Your task to perform on an android device: Search for sushi restaurants on Maps Image 0: 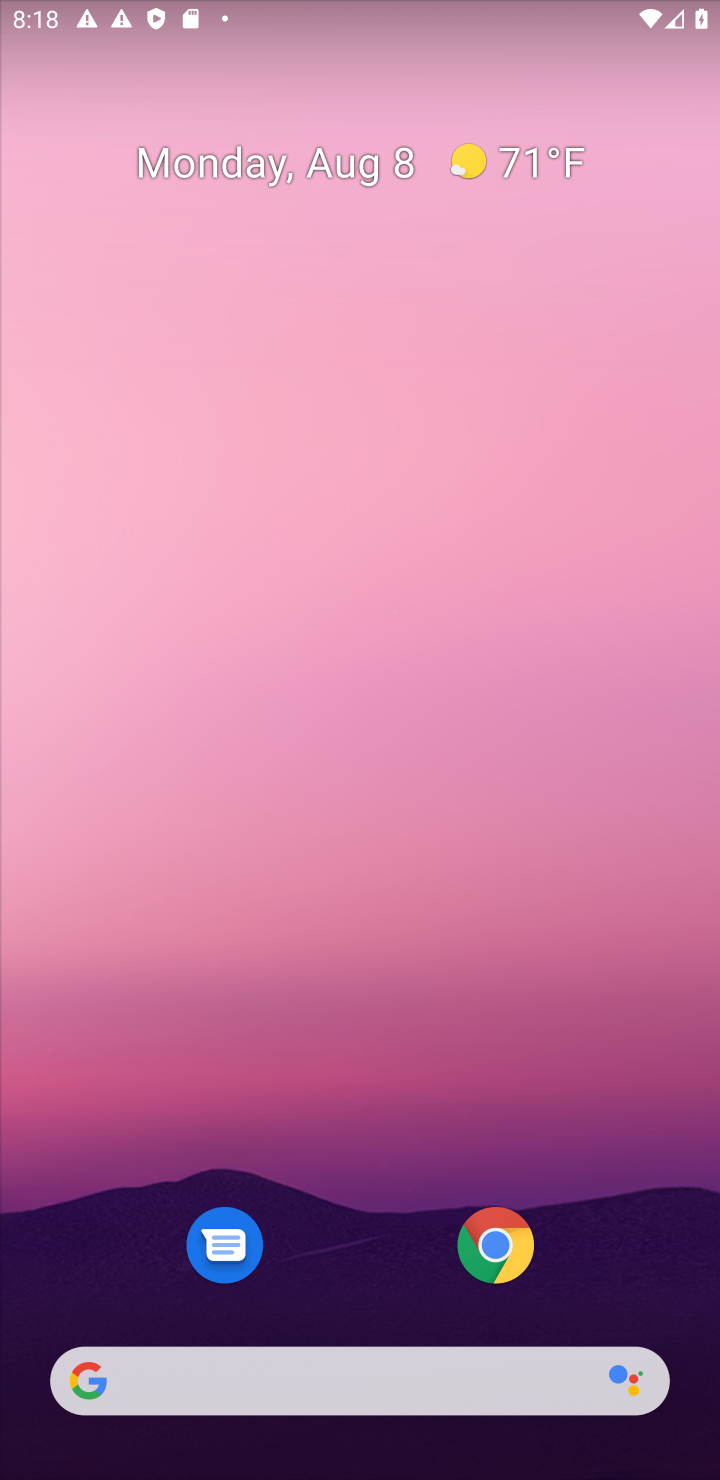
Step 0: drag from (339, 1168) to (309, 28)
Your task to perform on an android device: Search for sushi restaurants on Maps Image 1: 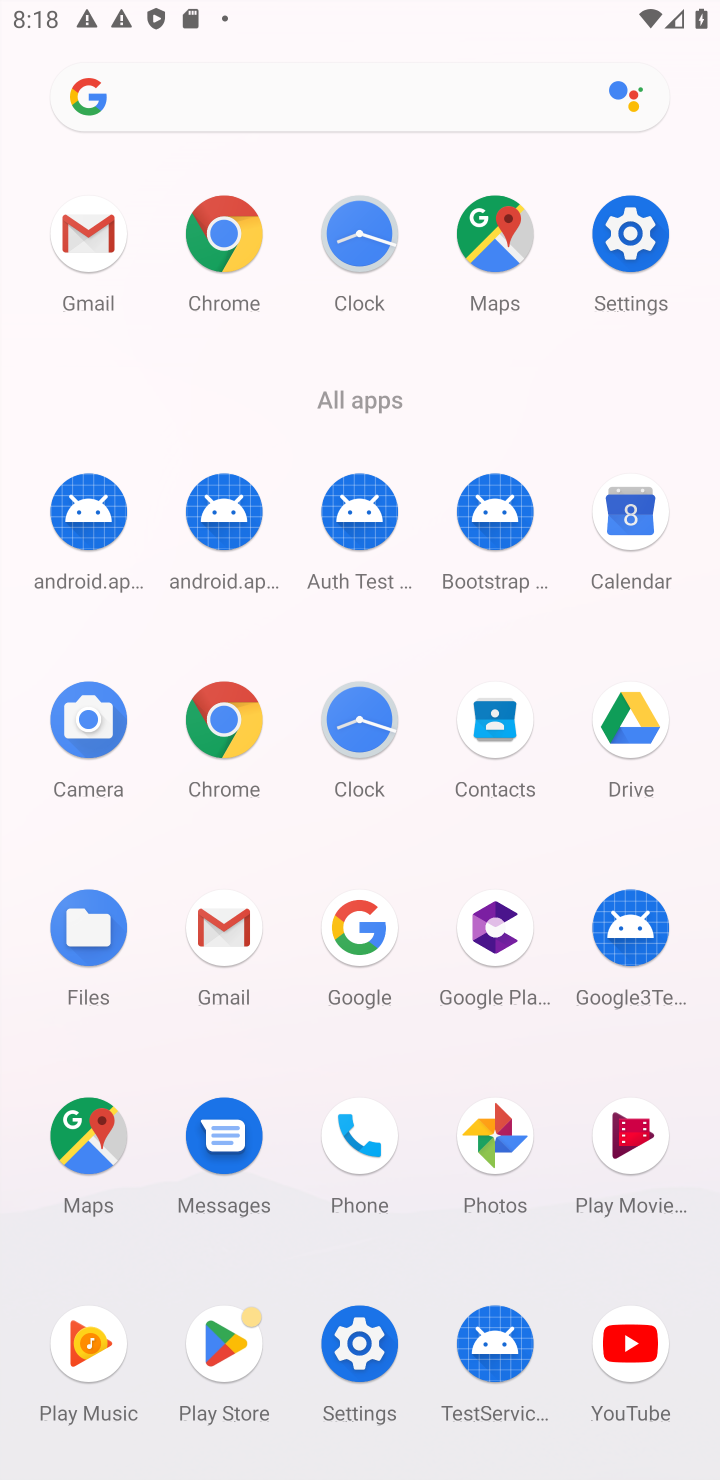
Step 1: click (94, 1134)
Your task to perform on an android device: Search for sushi restaurants on Maps Image 2: 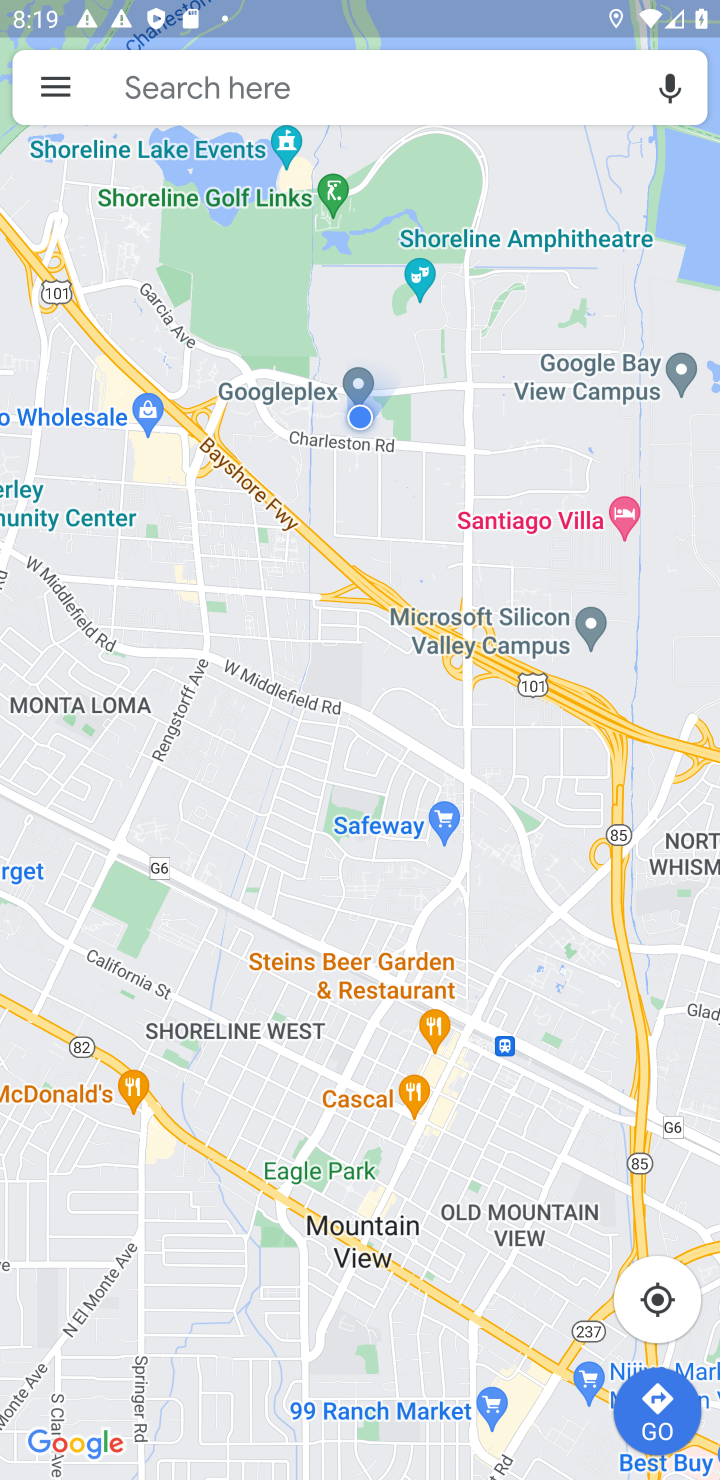
Step 2: click (326, 81)
Your task to perform on an android device: Search for sushi restaurants on Maps Image 3: 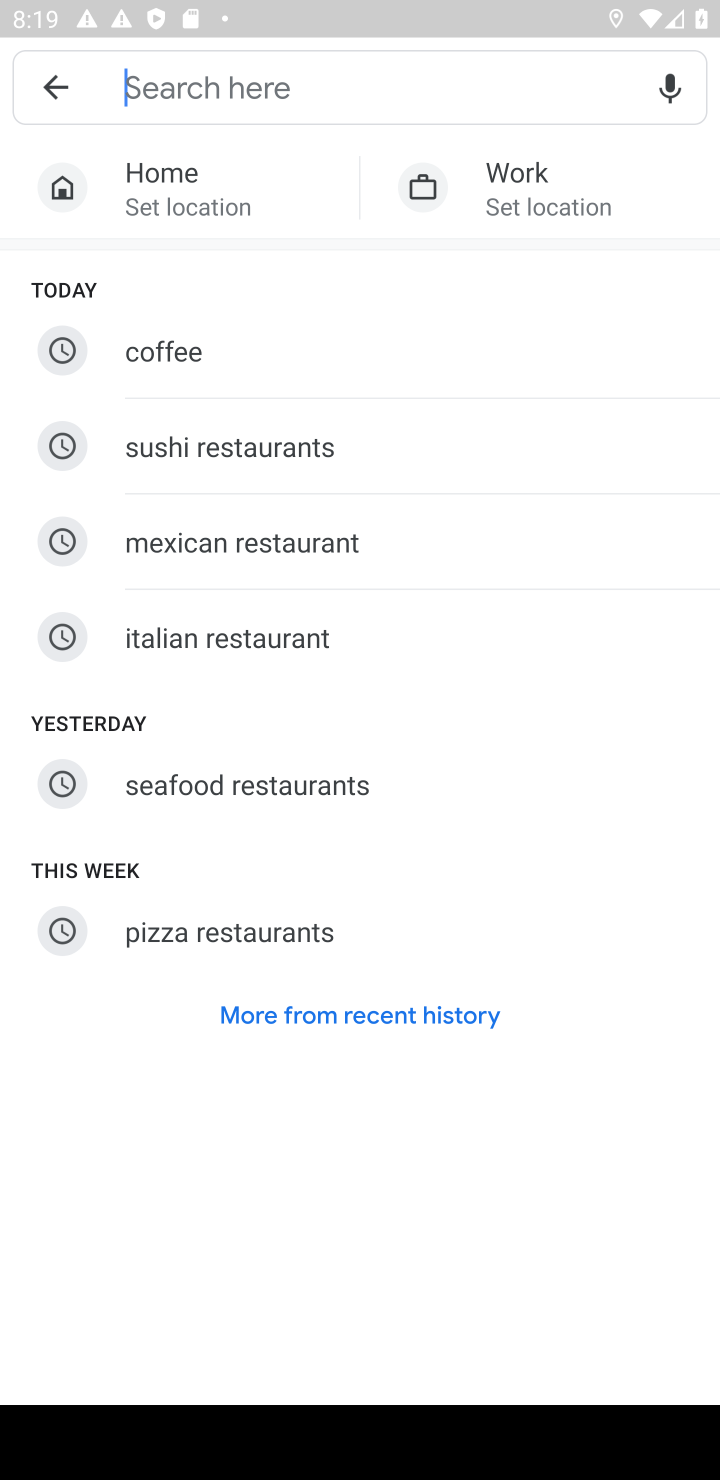
Step 3: type "Sushi restaurants"
Your task to perform on an android device: Search for sushi restaurants on Maps Image 4: 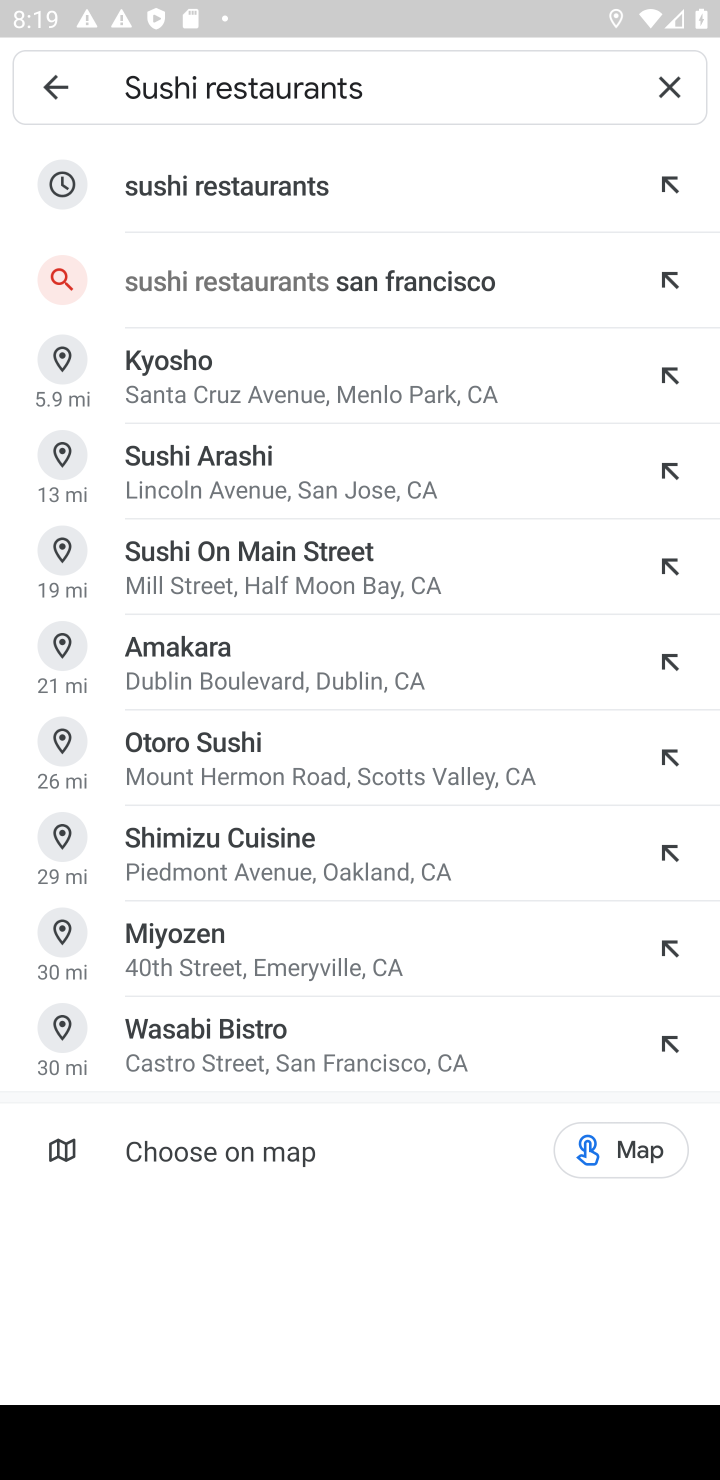
Step 4: click (300, 199)
Your task to perform on an android device: Search for sushi restaurants on Maps Image 5: 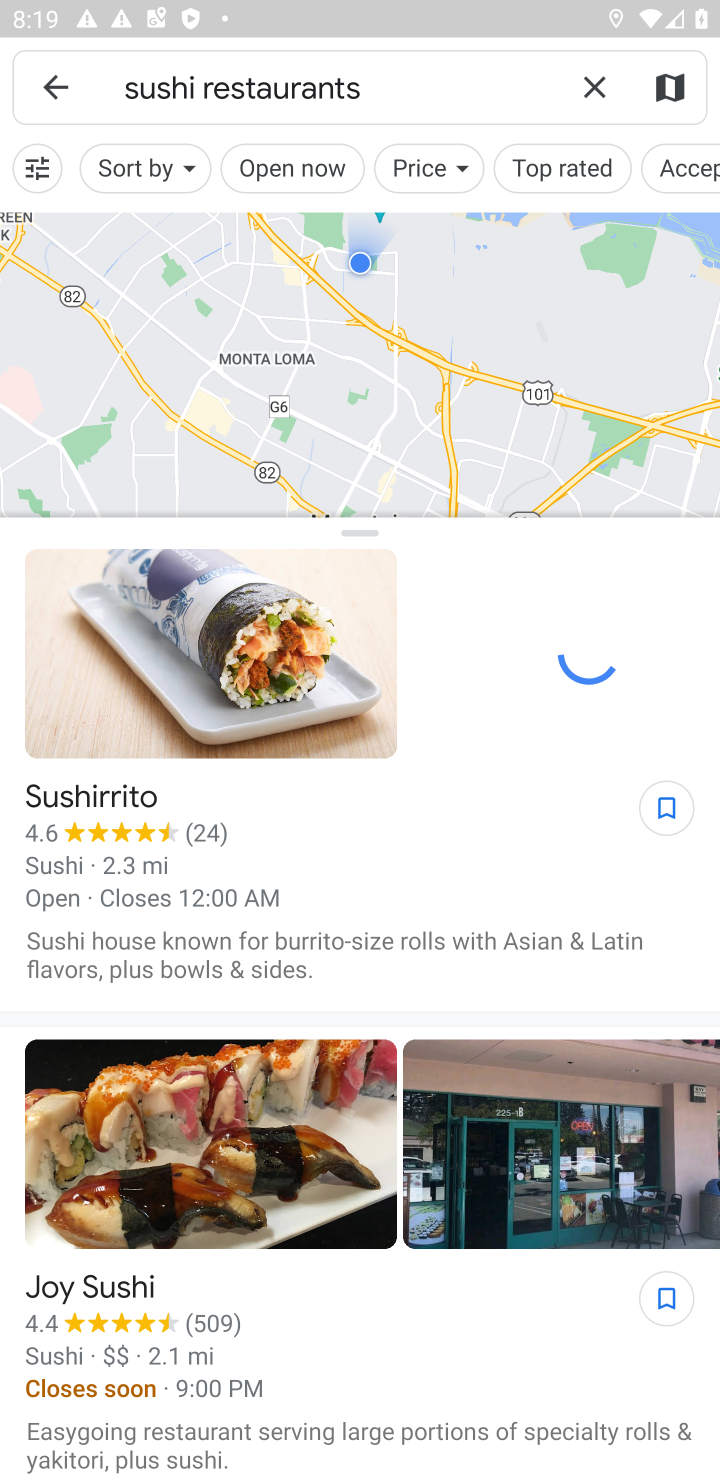
Step 5: task complete